Your task to perform on an android device: Clear the shopping cart on costco. Add "apple airpods pro" to the cart on costco Image 0: 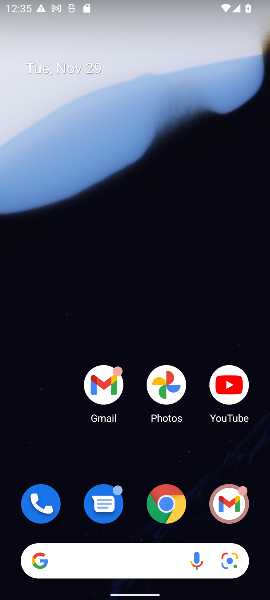
Step 0: click (171, 507)
Your task to perform on an android device: Clear the shopping cart on costco. Add "apple airpods pro" to the cart on costco Image 1: 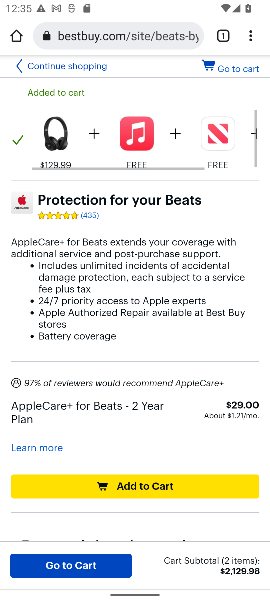
Step 1: click (100, 37)
Your task to perform on an android device: Clear the shopping cart on costco. Add "apple airpods pro" to the cart on costco Image 2: 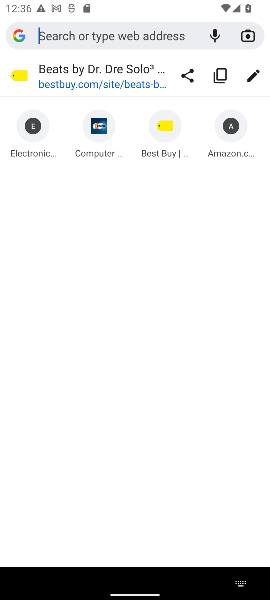
Step 2: type "costco.com"
Your task to perform on an android device: Clear the shopping cart on costco. Add "apple airpods pro" to the cart on costco Image 3: 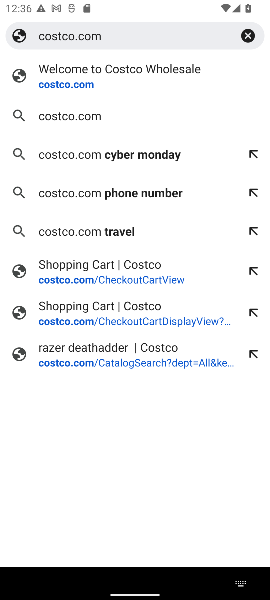
Step 3: click (55, 87)
Your task to perform on an android device: Clear the shopping cart on costco. Add "apple airpods pro" to the cart on costco Image 4: 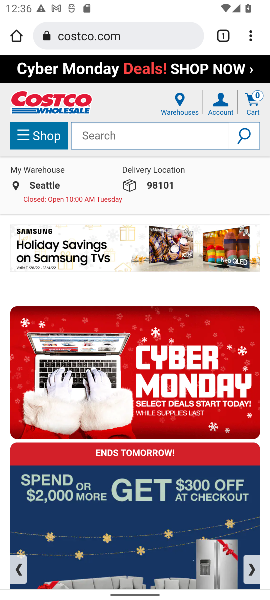
Step 4: click (251, 98)
Your task to perform on an android device: Clear the shopping cart on costco. Add "apple airpods pro" to the cart on costco Image 5: 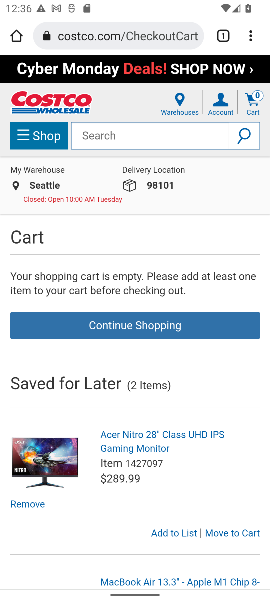
Step 5: click (113, 134)
Your task to perform on an android device: Clear the shopping cart on costco. Add "apple airpods pro" to the cart on costco Image 6: 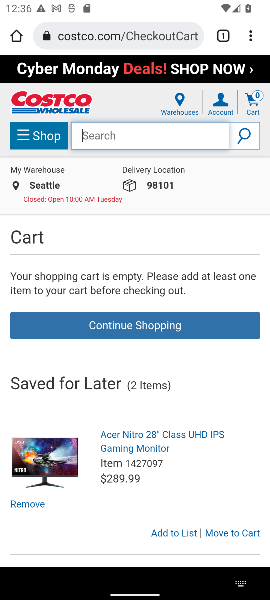
Step 6: type "apple airpods pro"
Your task to perform on an android device: Clear the shopping cart on costco. Add "apple airpods pro" to the cart on costco Image 7: 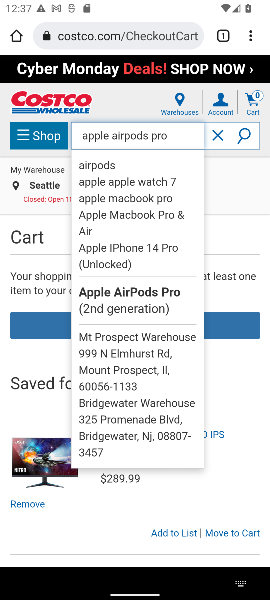
Step 7: click (242, 132)
Your task to perform on an android device: Clear the shopping cart on costco. Add "apple airpods pro" to the cart on costco Image 8: 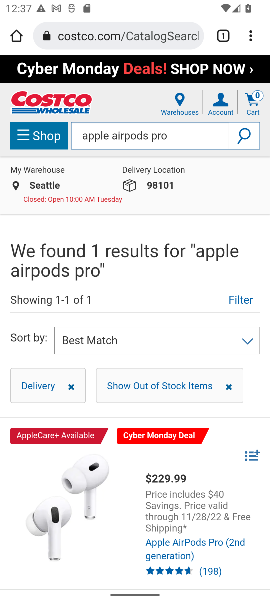
Step 8: drag from (163, 360) to (188, 234)
Your task to perform on an android device: Clear the shopping cart on costco. Add "apple airpods pro" to the cart on costco Image 9: 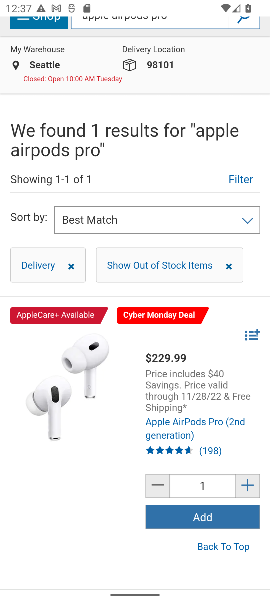
Step 9: click (197, 518)
Your task to perform on an android device: Clear the shopping cart on costco. Add "apple airpods pro" to the cart on costco Image 10: 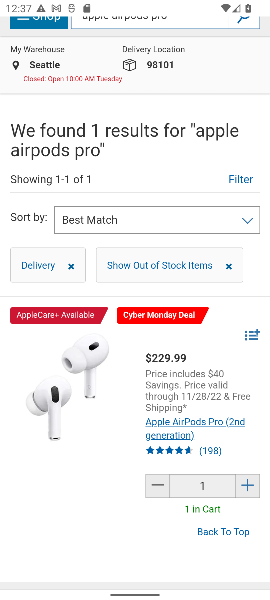
Step 10: task complete